Your task to perform on an android device: Is it going to rain this weekend? Image 0: 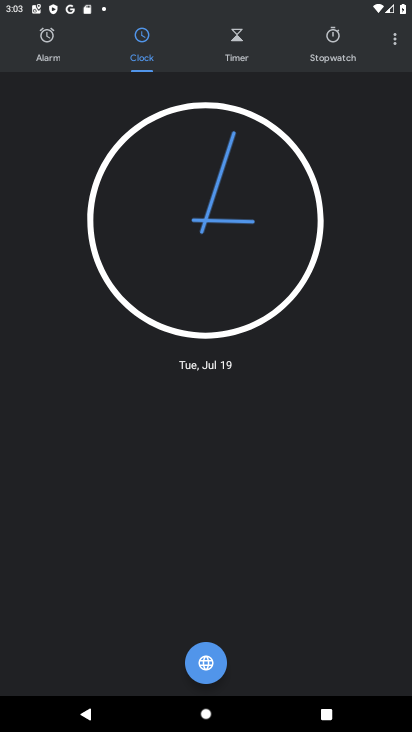
Step 0: press home button
Your task to perform on an android device: Is it going to rain this weekend? Image 1: 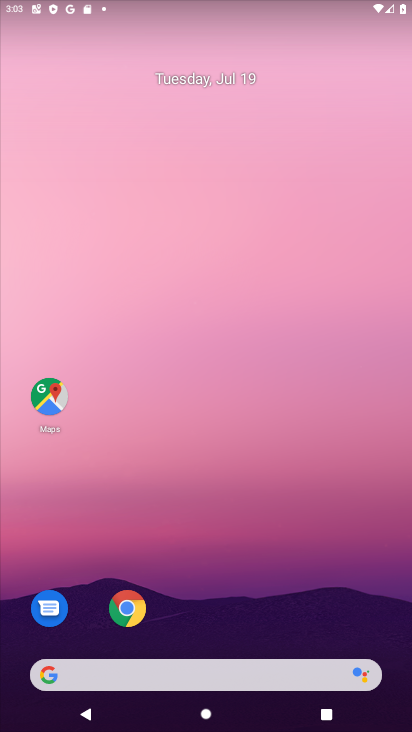
Step 1: drag from (330, 586) to (278, 74)
Your task to perform on an android device: Is it going to rain this weekend? Image 2: 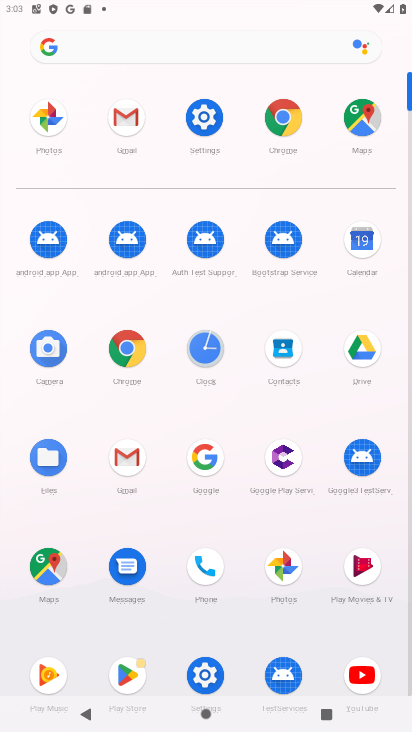
Step 2: click (362, 244)
Your task to perform on an android device: Is it going to rain this weekend? Image 3: 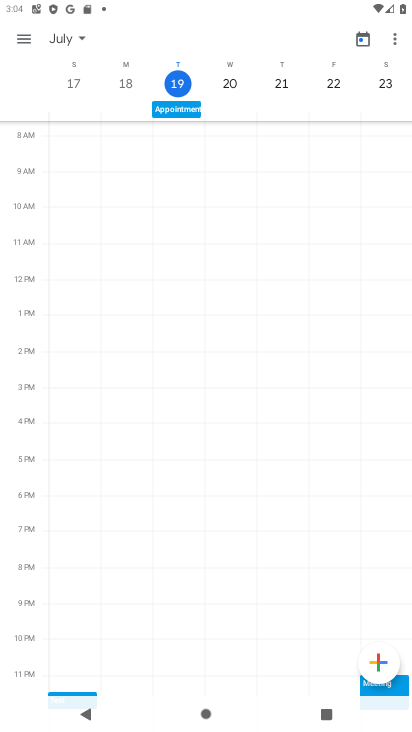
Step 3: press home button
Your task to perform on an android device: Is it going to rain this weekend? Image 4: 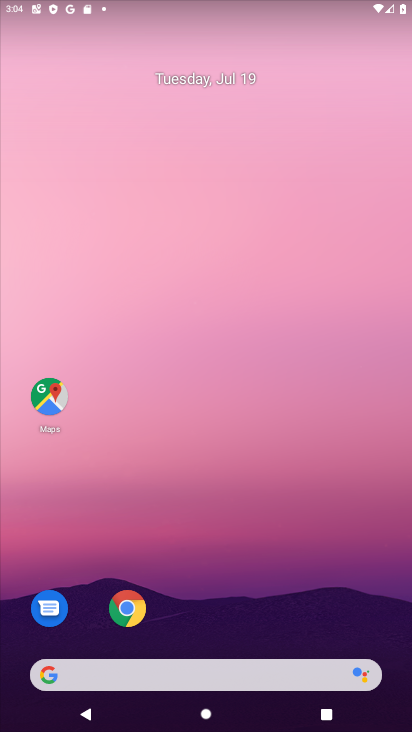
Step 4: drag from (263, 596) to (210, 81)
Your task to perform on an android device: Is it going to rain this weekend? Image 5: 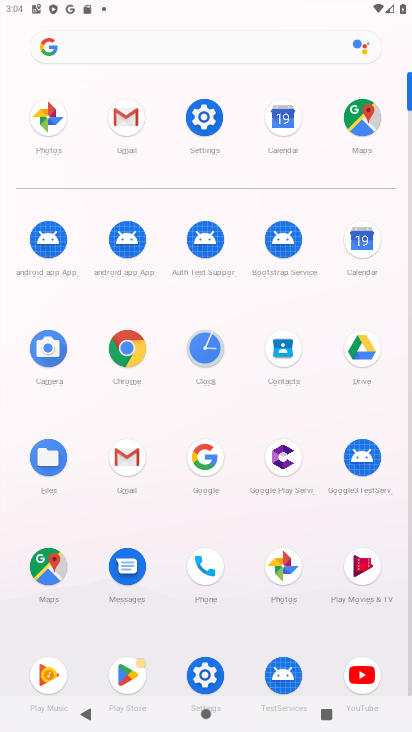
Step 5: click (133, 343)
Your task to perform on an android device: Is it going to rain this weekend? Image 6: 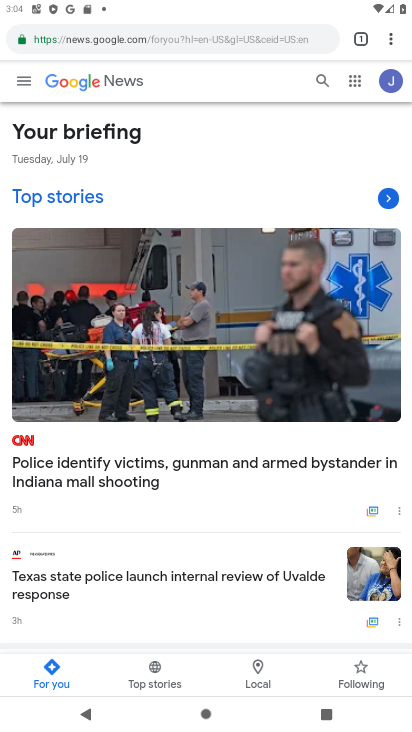
Step 6: click (185, 39)
Your task to perform on an android device: Is it going to rain this weekend? Image 7: 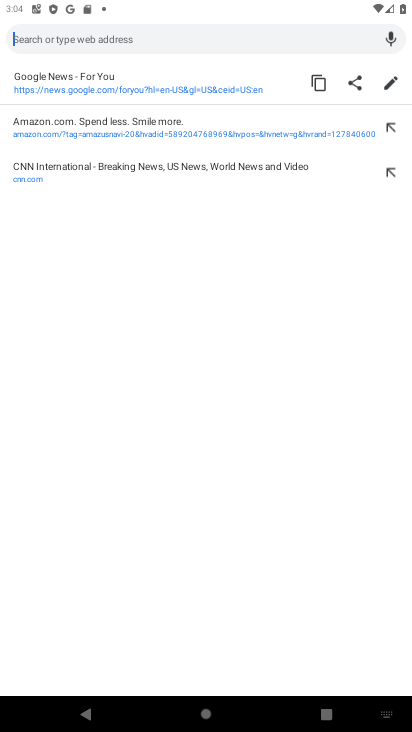
Step 7: type "weather"
Your task to perform on an android device: Is it going to rain this weekend? Image 8: 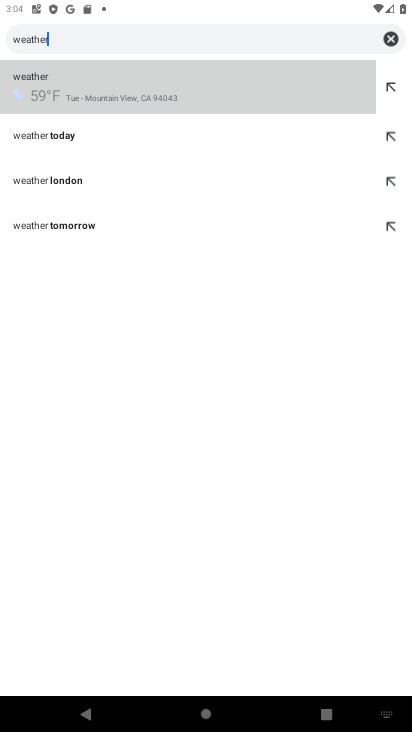
Step 8: click (47, 86)
Your task to perform on an android device: Is it going to rain this weekend? Image 9: 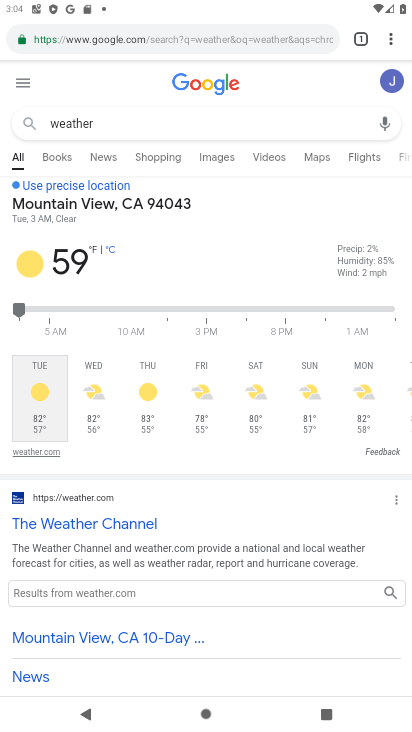
Step 9: click (250, 391)
Your task to perform on an android device: Is it going to rain this weekend? Image 10: 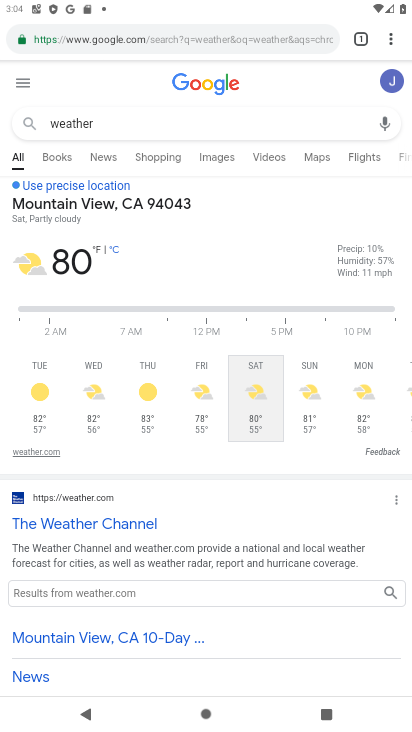
Step 10: task complete